Your task to perform on an android device: create a new album in the google photos Image 0: 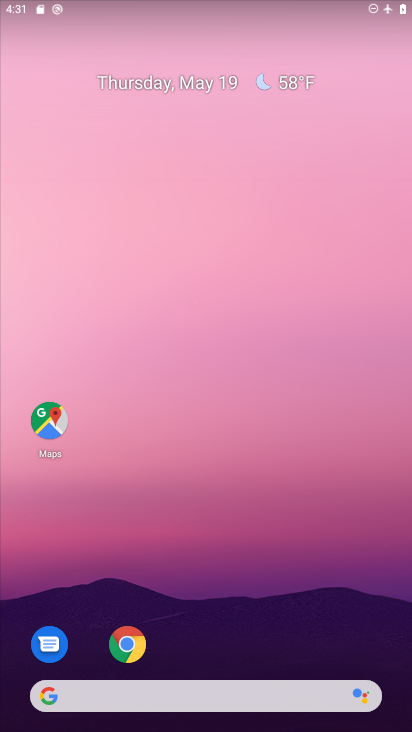
Step 0: drag from (258, 610) to (222, 27)
Your task to perform on an android device: create a new album in the google photos Image 1: 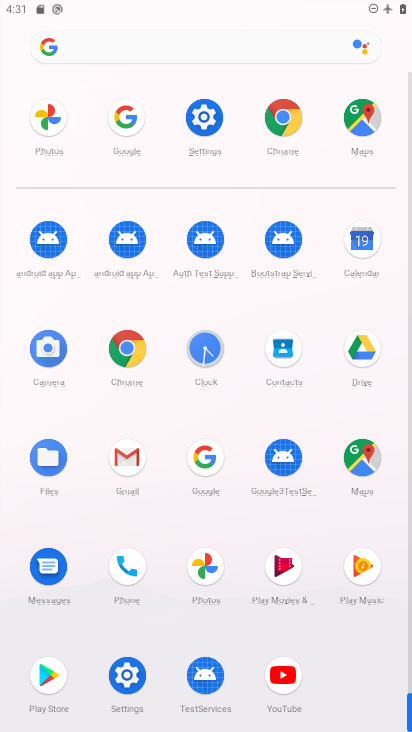
Step 1: drag from (0, 561) to (0, 238)
Your task to perform on an android device: create a new album in the google photos Image 2: 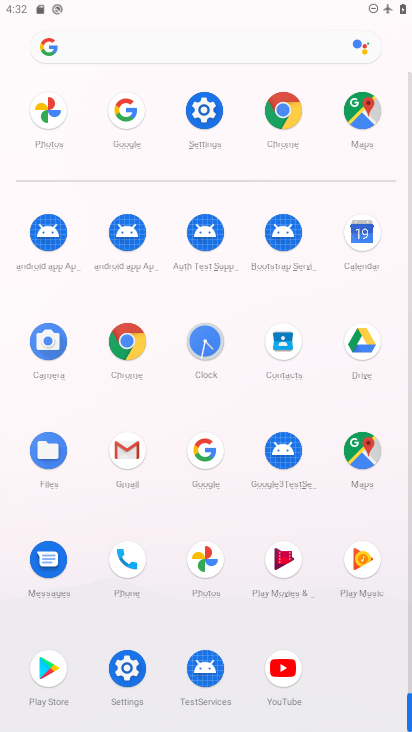
Step 2: click (203, 556)
Your task to perform on an android device: create a new album in the google photos Image 3: 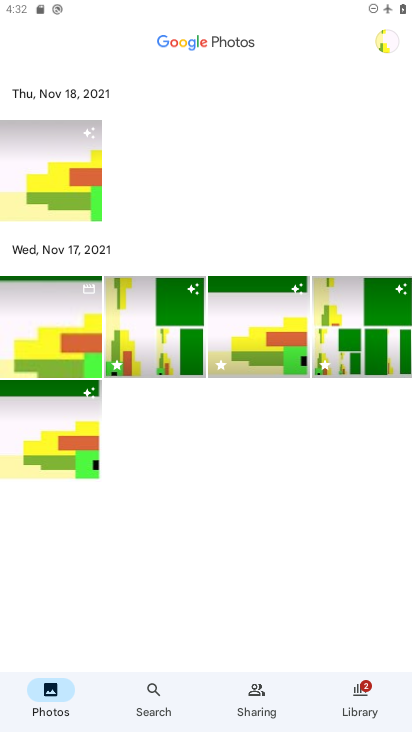
Step 3: click (59, 174)
Your task to perform on an android device: create a new album in the google photos Image 4: 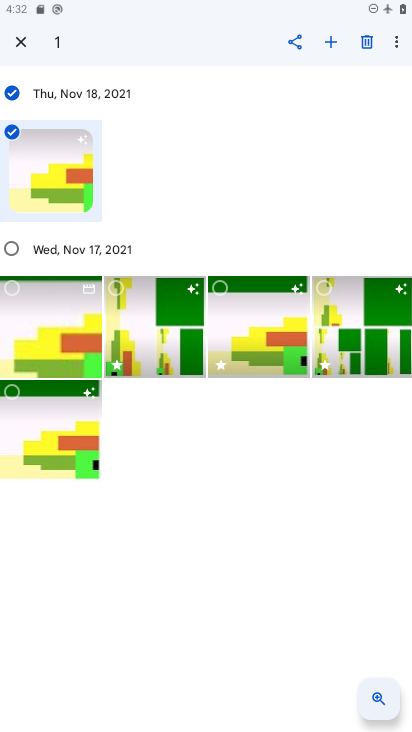
Step 4: click (327, 36)
Your task to perform on an android device: create a new album in the google photos Image 5: 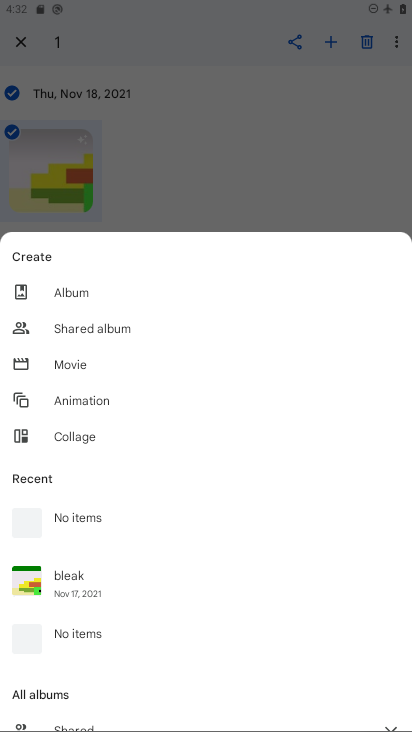
Step 5: click (120, 296)
Your task to perform on an android device: create a new album in the google photos Image 6: 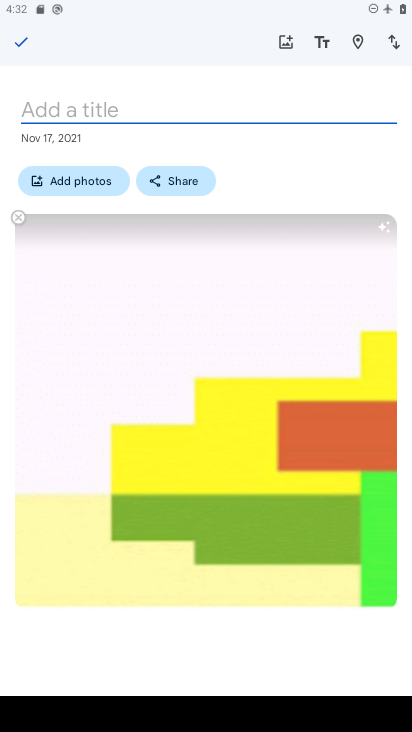
Step 6: type "DFGHJK"
Your task to perform on an android device: create a new album in the google photos Image 7: 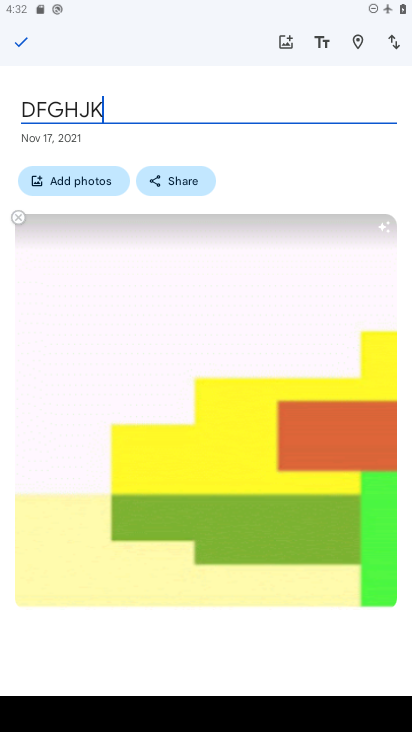
Step 7: type ""
Your task to perform on an android device: create a new album in the google photos Image 8: 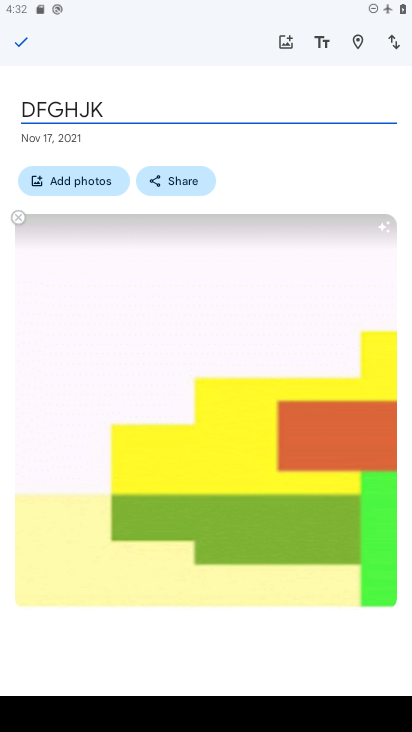
Step 8: click (26, 39)
Your task to perform on an android device: create a new album in the google photos Image 9: 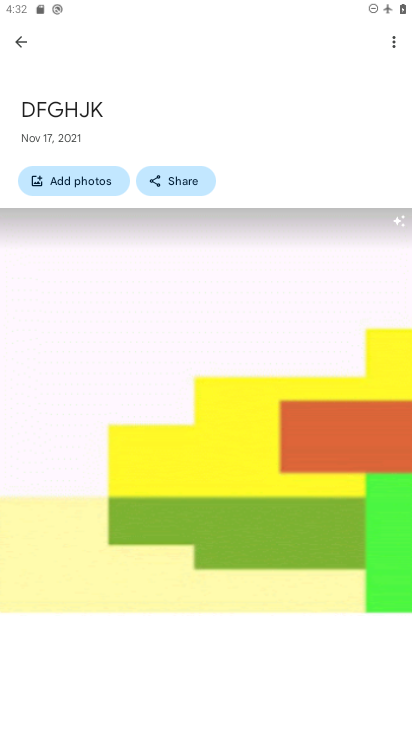
Step 9: task complete